Your task to perform on an android device: Open ESPN.com Image 0: 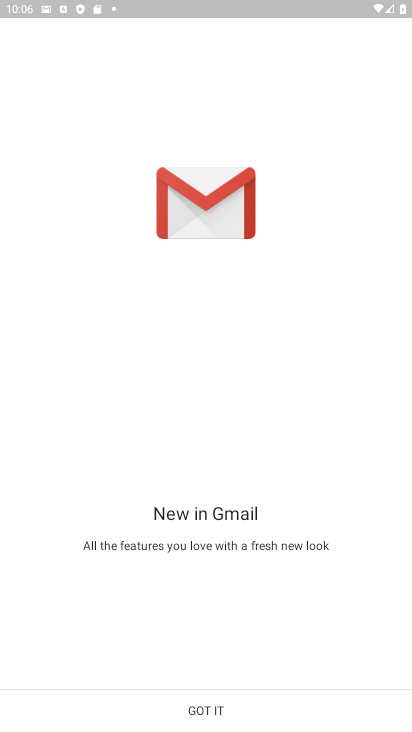
Step 0: press home button
Your task to perform on an android device: Open ESPN.com Image 1: 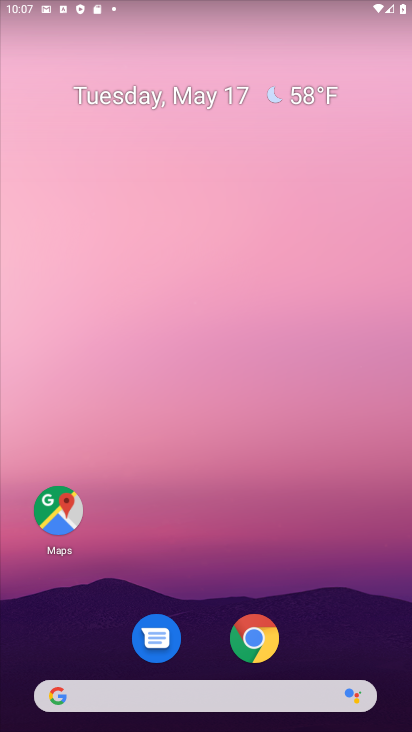
Step 1: click (250, 639)
Your task to perform on an android device: Open ESPN.com Image 2: 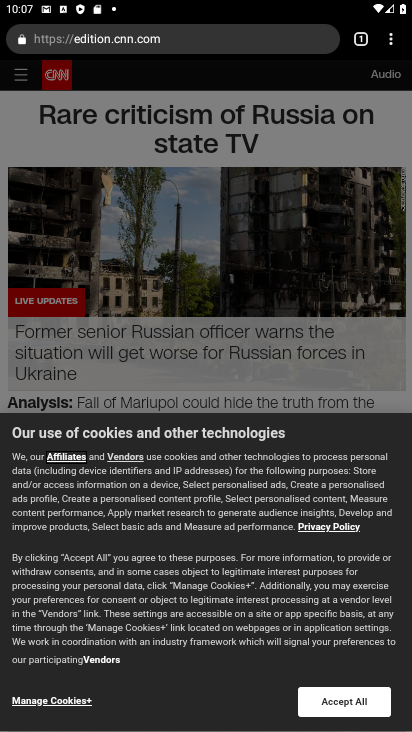
Step 2: click (226, 36)
Your task to perform on an android device: Open ESPN.com Image 3: 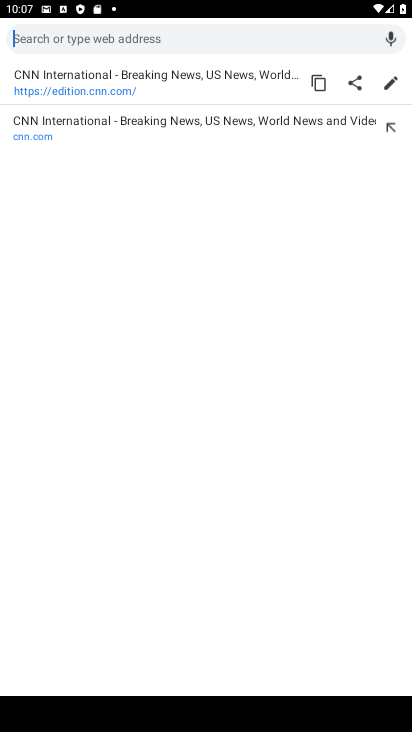
Step 3: type "espn"
Your task to perform on an android device: Open ESPN.com Image 4: 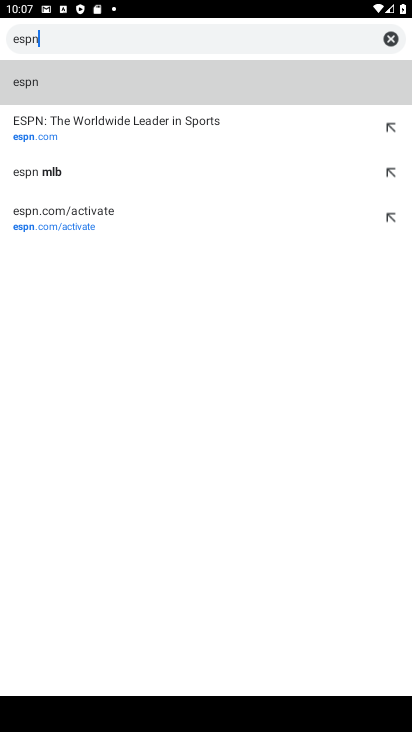
Step 4: click (101, 135)
Your task to perform on an android device: Open ESPN.com Image 5: 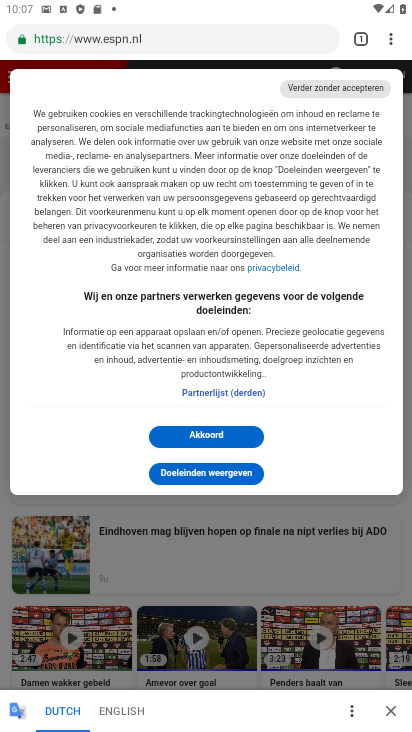
Step 5: task complete